Your task to perform on an android device: refresh tabs in the chrome app Image 0: 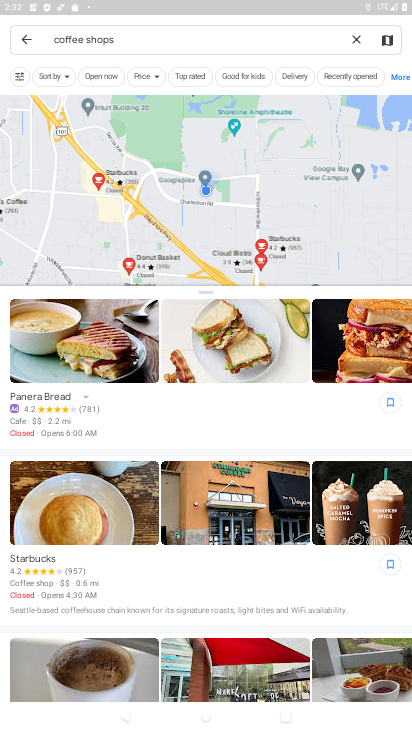
Step 0: press home button
Your task to perform on an android device: refresh tabs in the chrome app Image 1: 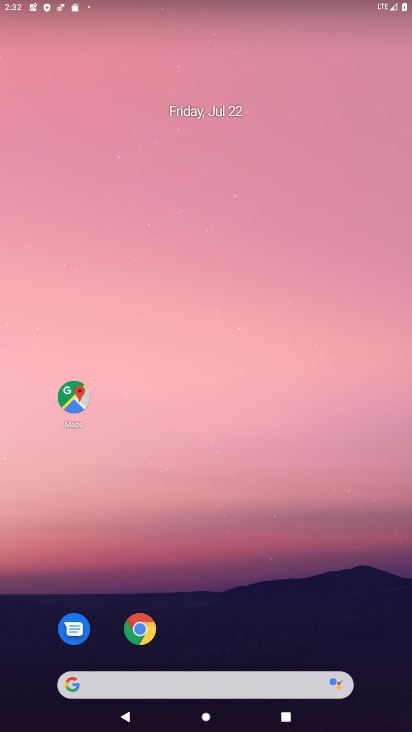
Step 1: click (136, 622)
Your task to perform on an android device: refresh tabs in the chrome app Image 2: 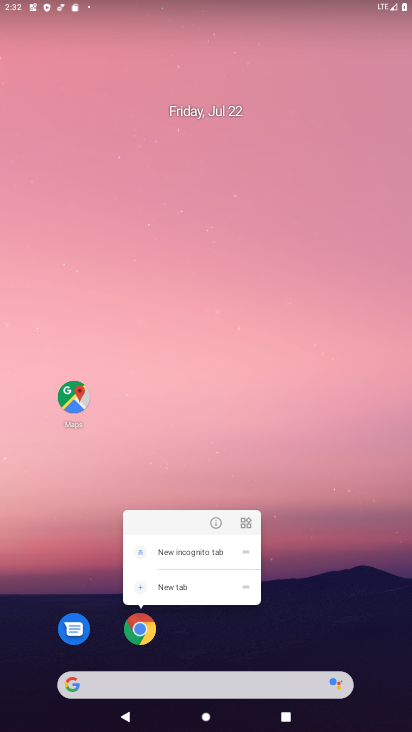
Step 2: click (142, 625)
Your task to perform on an android device: refresh tabs in the chrome app Image 3: 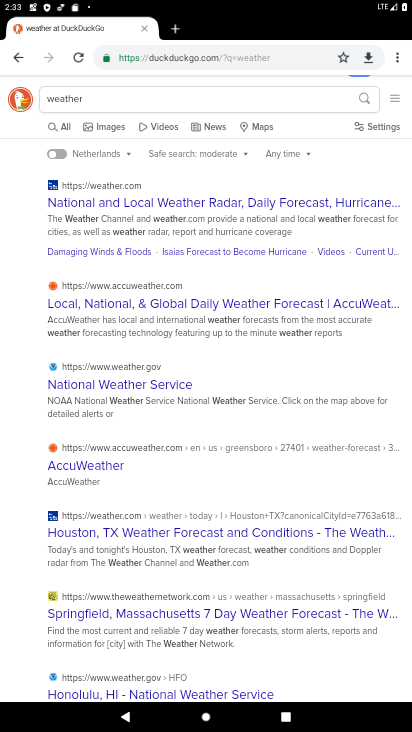
Step 3: click (75, 58)
Your task to perform on an android device: refresh tabs in the chrome app Image 4: 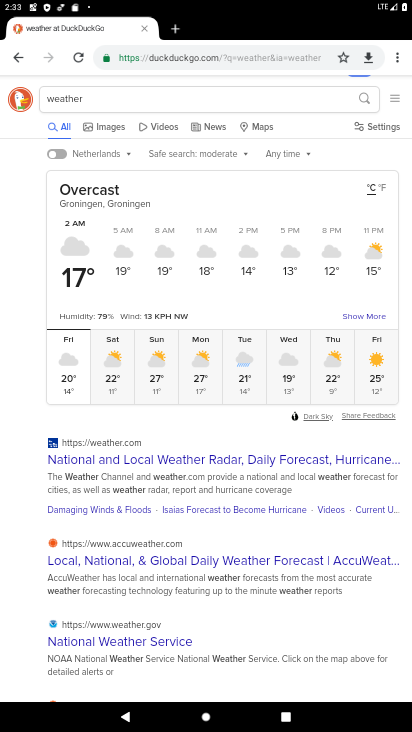
Step 4: task complete